Your task to perform on an android device: View the shopping cart on target. Search for alienware aurora on target, select the first entry, and add it to the cart. Image 0: 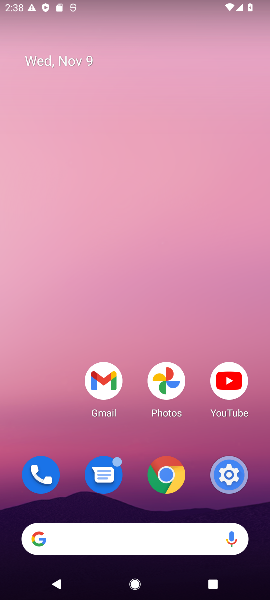
Step 0: drag from (180, 496) to (226, 29)
Your task to perform on an android device: View the shopping cart on target. Search for alienware aurora on target, select the first entry, and add it to the cart. Image 1: 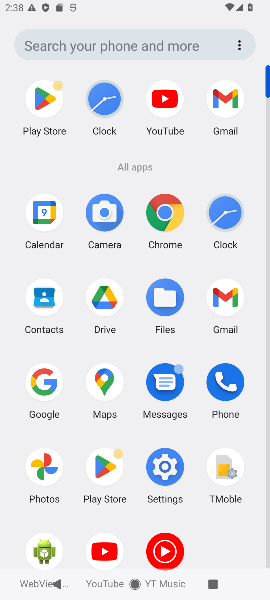
Step 1: click (167, 212)
Your task to perform on an android device: View the shopping cart on target. Search for alienware aurora on target, select the first entry, and add it to the cart. Image 2: 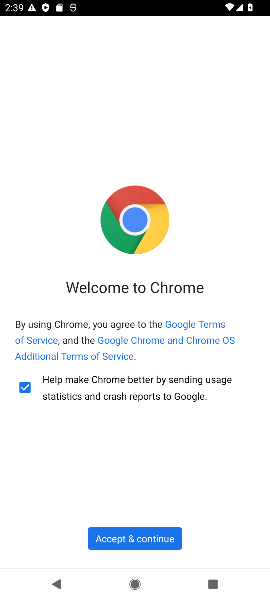
Step 2: click (167, 537)
Your task to perform on an android device: View the shopping cart on target. Search for alienware aurora on target, select the first entry, and add it to the cart. Image 3: 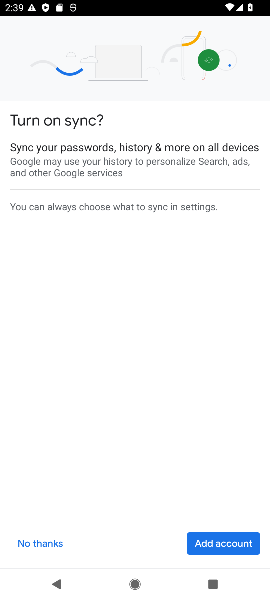
Step 3: click (49, 537)
Your task to perform on an android device: View the shopping cart on target. Search for alienware aurora on target, select the first entry, and add it to the cart. Image 4: 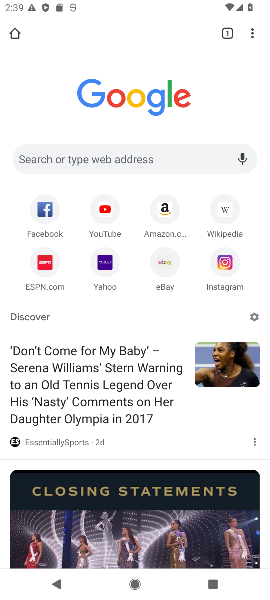
Step 4: click (62, 157)
Your task to perform on an android device: View the shopping cart on target. Search for alienware aurora on target, select the first entry, and add it to the cart. Image 5: 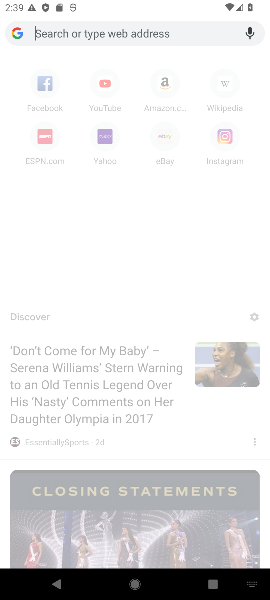
Step 5: type "target"
Your task to perform on an android device: View the shopping cart on target. Search for alienware aurora on target, select the first entry, and add it to the cart. Image 6: 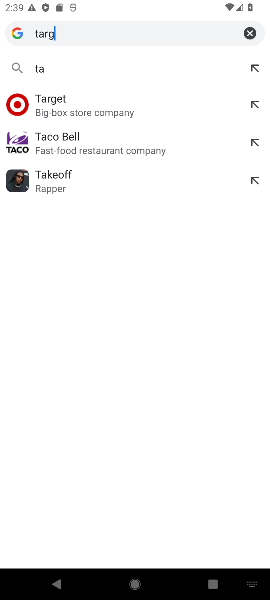
Step 6: press enter
Your task to perform on an android device: View the shopping cart on target. Search for alienware aurora on target, select the first entry, and add it to the cart. Image 7: 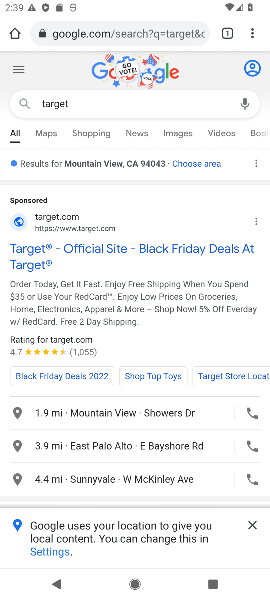
Step 7: click (46, 224)
Your task to perform on an android device: View the shopping cart on target. Search for alienware aurora on target, select the first entry, and add it to the cart. Image 8: 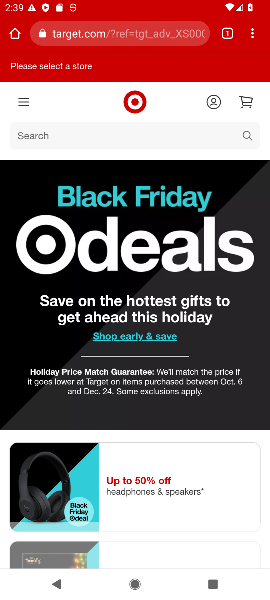
Step 8: drag from (146, 455) to (179, 206)
Your task to perform on an android device: View the shopping cart on target. Search for alienware aurora on target, select the first entry, and add it to the cart. Image 9: 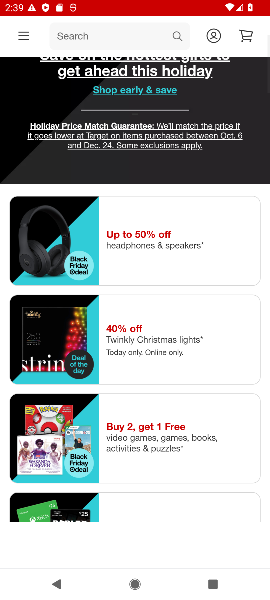
Step 9: click (175, 242)
Your task to perform on an android device: View the shopping cart on target. Search for alienware aurora on target, select the first entry, and add it to the cart. Image 10: 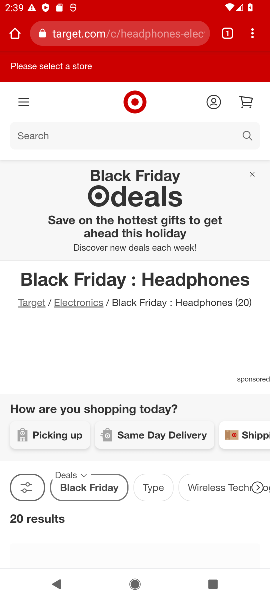
Step 10: drag from (152, 429) to (158, 231)
Your task to perform on an android device: View the shopping cart on target. Search for alienware aurora on target, select the first entry, and add it to the cart. Image 11: 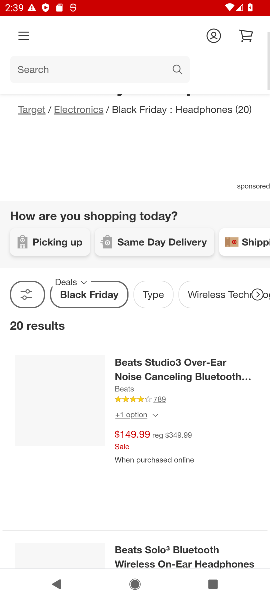
Step 11: drag from (161, 435) to (138, 218)
Your task to perform on an android device: View the shopping cart on target. Search for alienware aurora on target, select the first entry, and add it to the cart. Image 12: 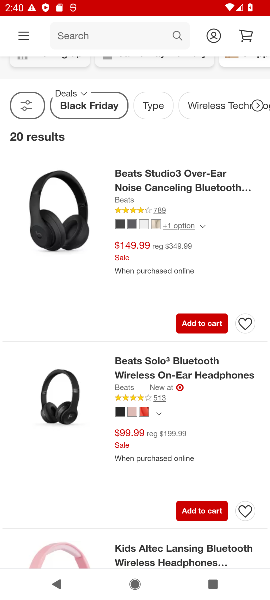
Step 12: click (202, 322)
Your task to perform on an android device: View the shopping cart on target. Search for alienware aurora on target, select the first entry, and add it to the cart. Image 13: 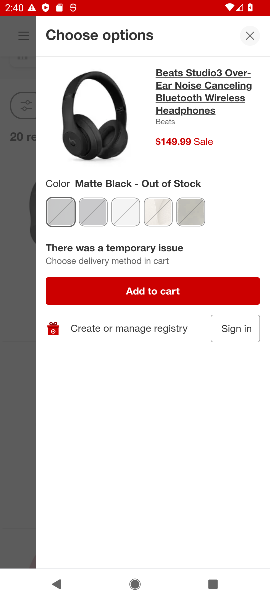
Step 13: click (178, 295)
Your task to perform on an android device: View the shopping cart on target. Search for alienware aurora on target, select the first entry, and add it to the cart. Image 14: 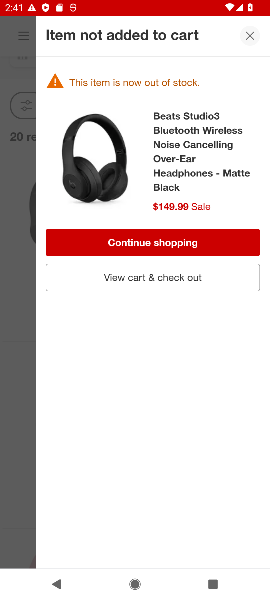
Step 14: task complete